Your task to perform on an android device: What's the weather going to be tomorrow? Image 0: 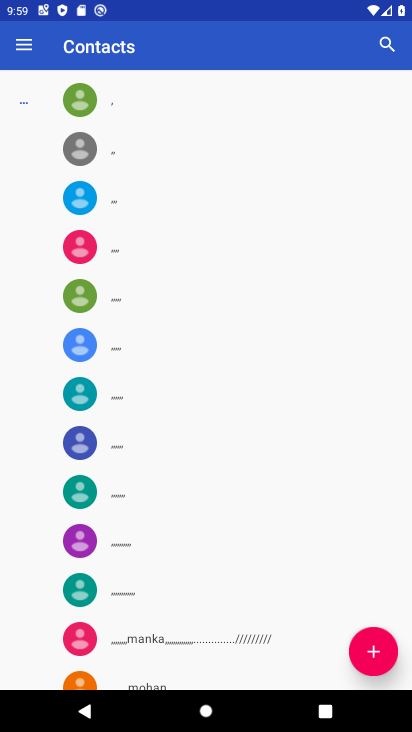
Step 0: press home button
Your task to perform on an android device: What's the weather going to be tomorrow? Image 1: 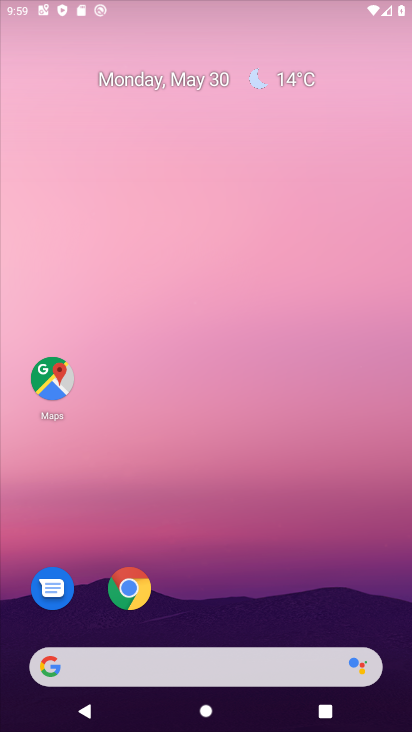
Step 1: drag from (287, 63) to (343, 0)
Your task to perform on an android device: What's the weather going to be tomorrow? Image 2: 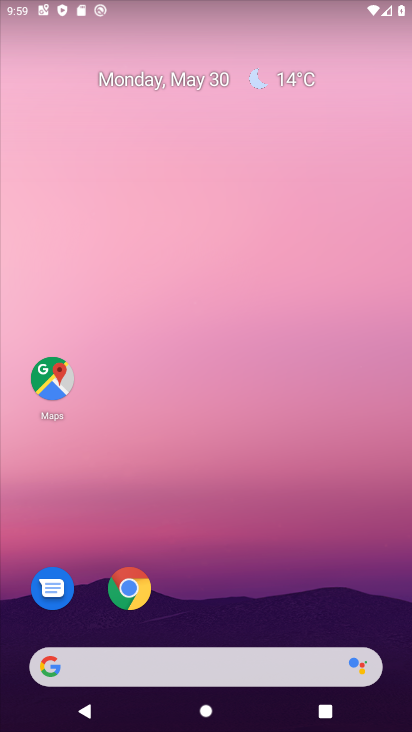
Step 2: drag from (207, 605) to (258, 4)
Your task to perform on an android device: What's the weather going to be tomorrow? Image 3: 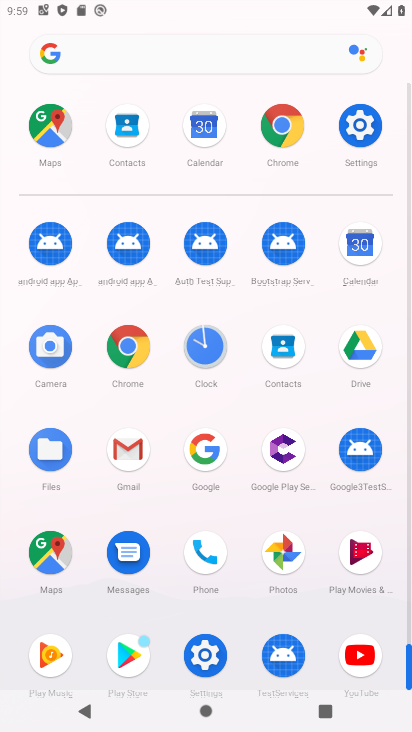
Step 3: press home button
Your task to perform on an android device: What's the weather going to be tomorrow? Image 4: 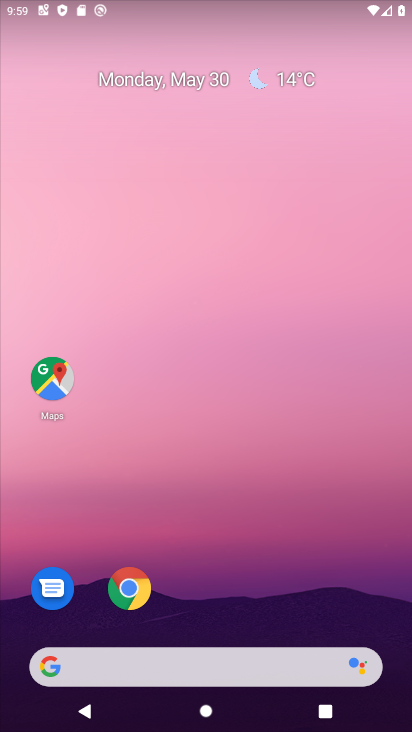
Step 4: click (295, 73)
Your task to perform on an android device: What's the weather going to be tomorrow? Image 5: 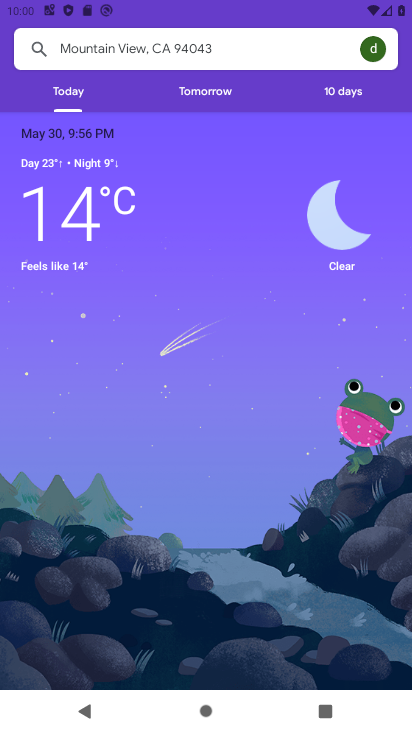
Step 5: click (225, 103)
Your task to perform on an android device: What's the weather going to be tomorrow? Image 6: 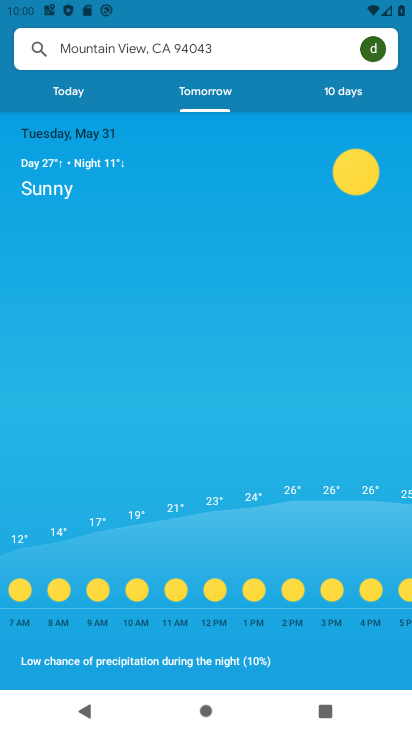
Step 6: task complete